Your task to perform on an android device: Search for flights from San Diego to Seattle Image 0: 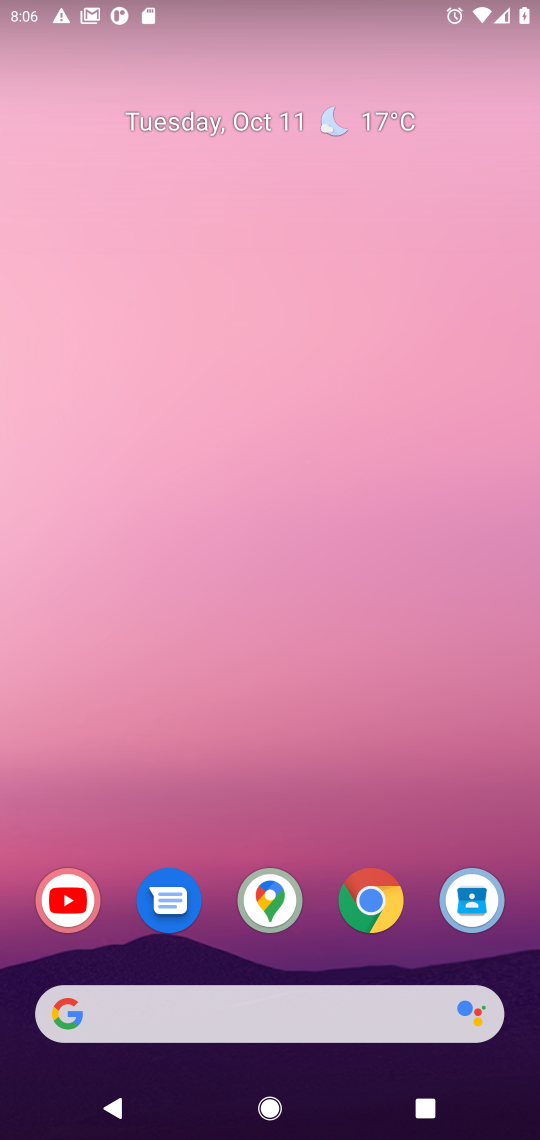
Step 0: click (374, 897)
Your task to perform on an android device: Search for flights from San Diego to Seattle Image 1: 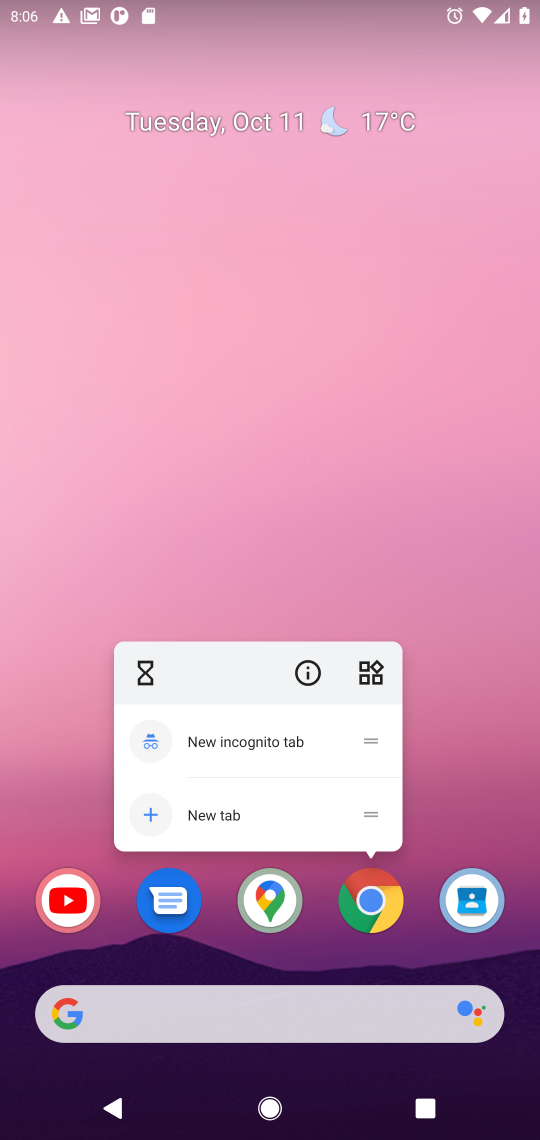
Step 1: click (366, 899)
Your task to perform on an android device: Search for flights from San Diego to Seattle Image 2: 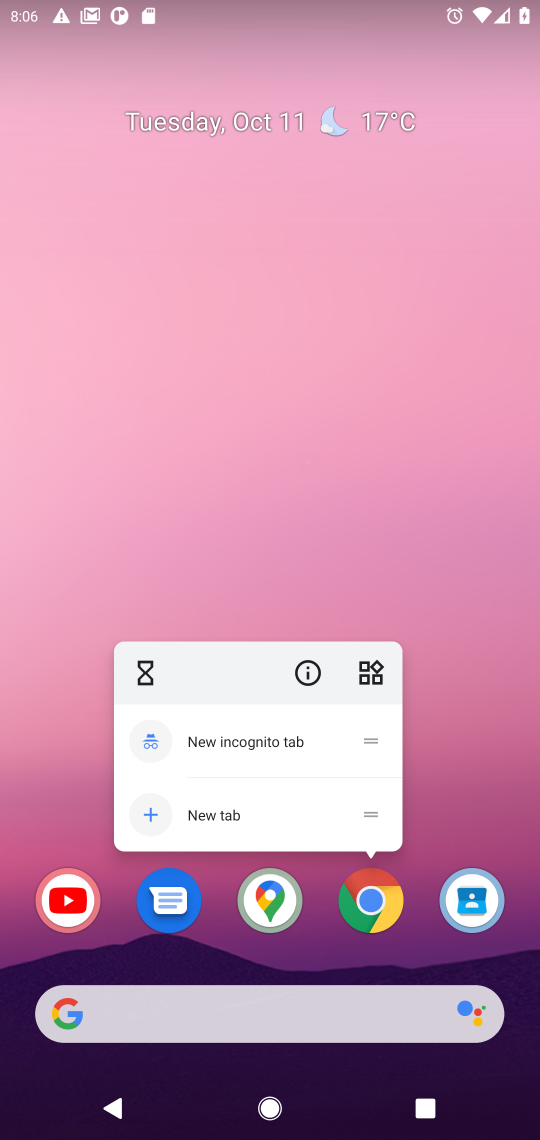
Step 2: click (366, 911)
Your task to perform on an android device: Search for flights from San Diego to Seattle Image 3: 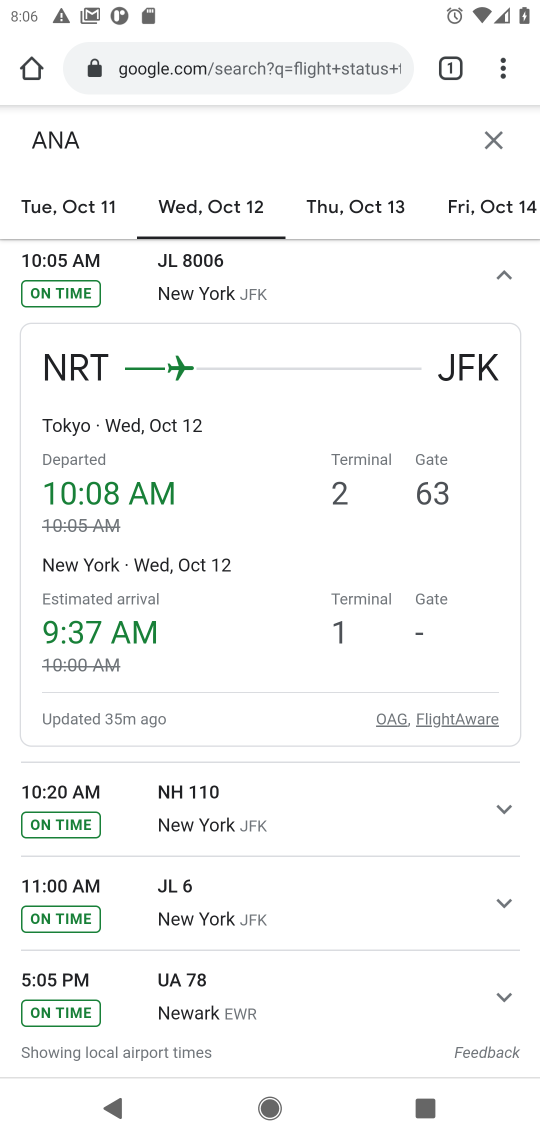
Step 3: click (304, 58)
Your task to perform on an android device: Search for flights from San Diego to Seattle Image 4: 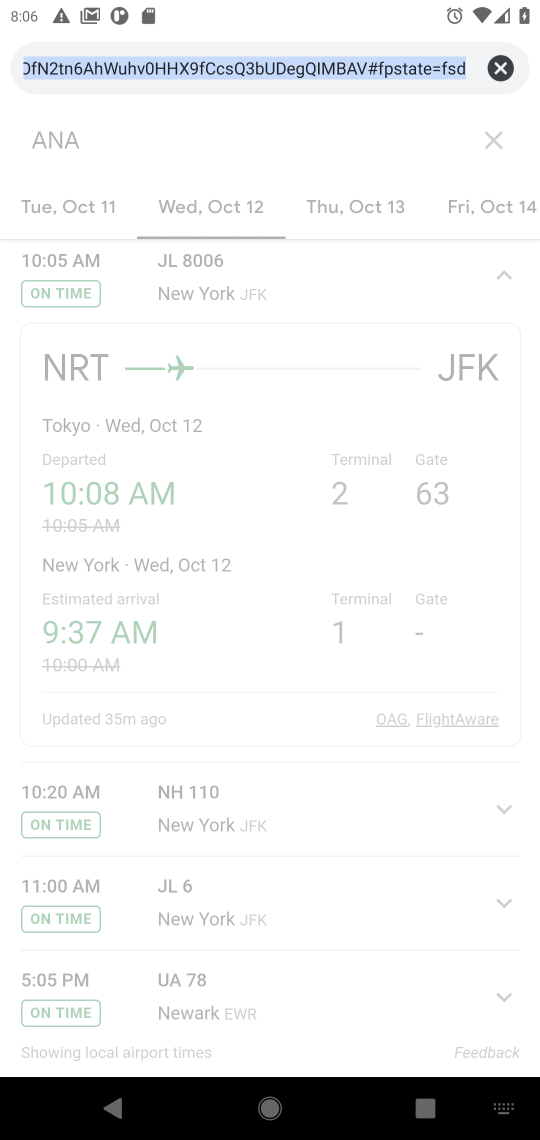
Step 4: click (498, 58)
Your task to perform on an android device: Search for flights from San Diego to Seattle Image 5: 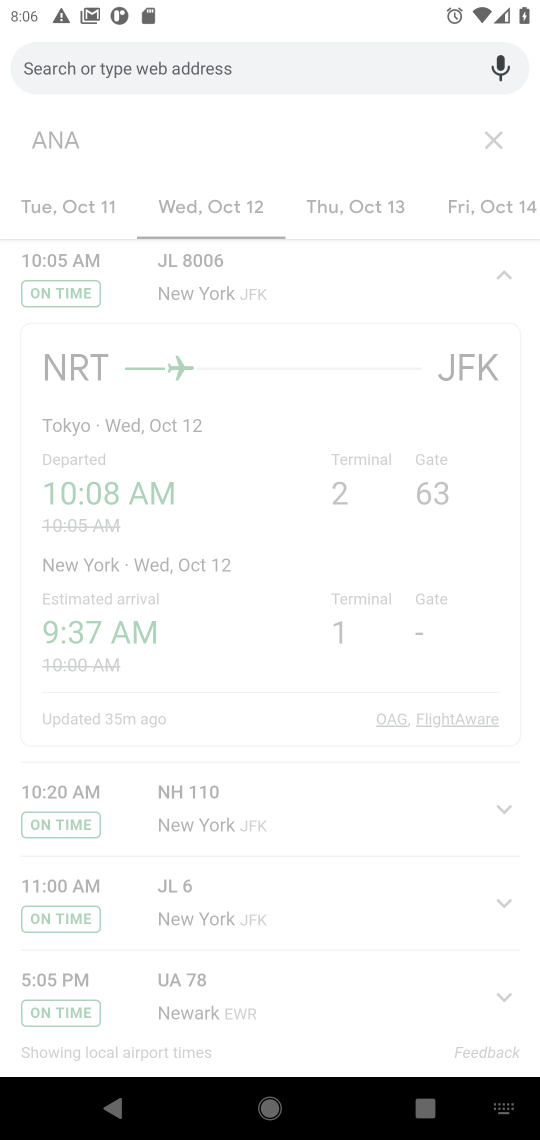
Step 5: type "flights from San Diego to Seattle"
Your task to perform on an android device: Search for flights from San Diego to Seattle Image 6: 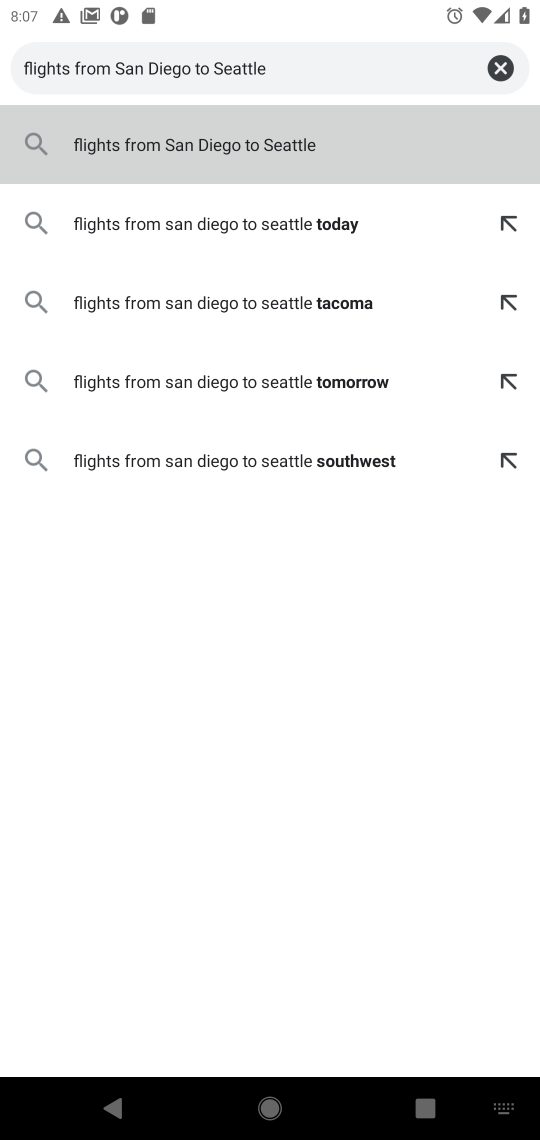
Step 6: press enter
Your task to perform on an android device: Search for flights from San Diego to Seattle Image 7: 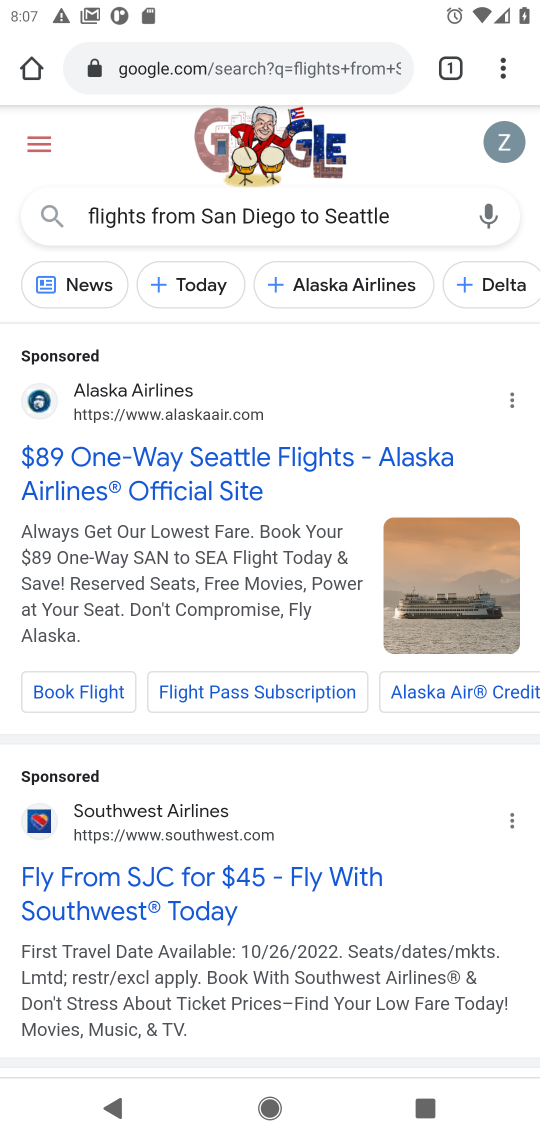
Step 7: drag from (183, 978) to (455, 108)
Your task to perform on an android device: Search for flights from San Diego to Seattle Image 8: 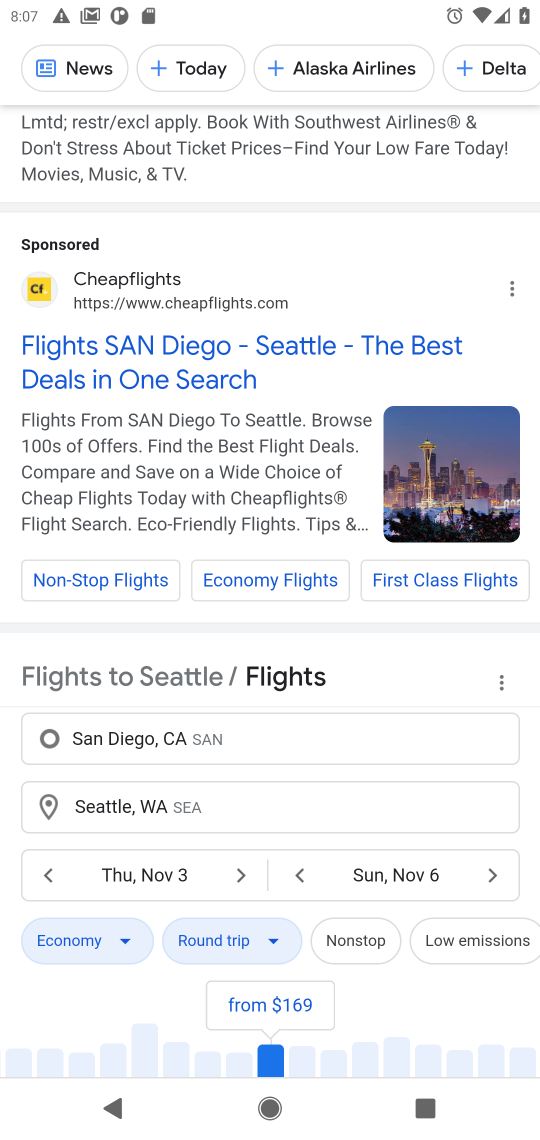
Step 8: drag from (110, 1011) to (338, 278)
Your task to perform on an android device: Search for flights from San Diego to Seattle Image 9: 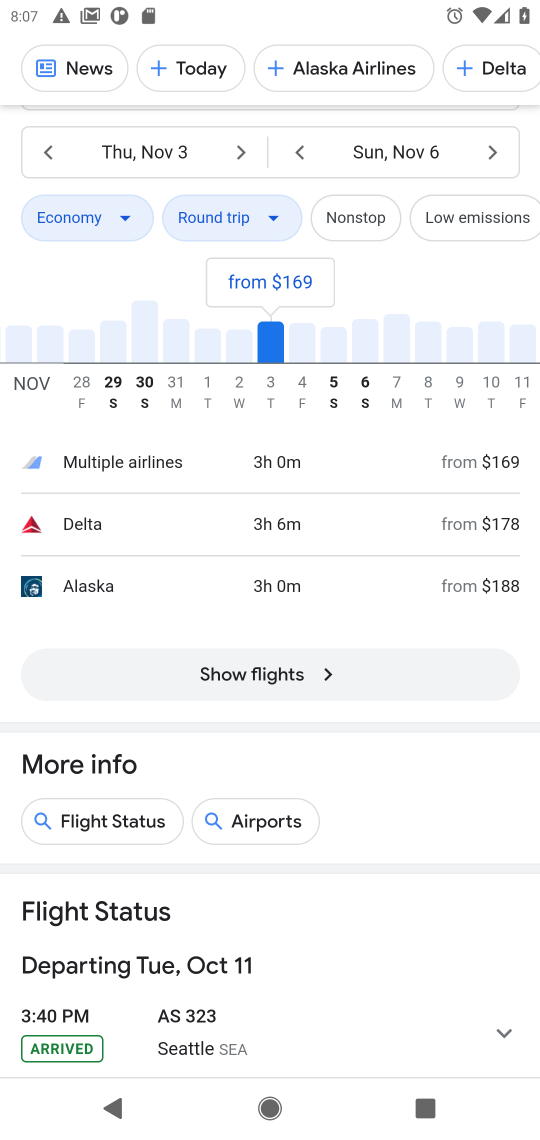
Step 9: click (256, 680)
Your task to perform on an android device: Search for flights from San Diego to Seattle Image 10: 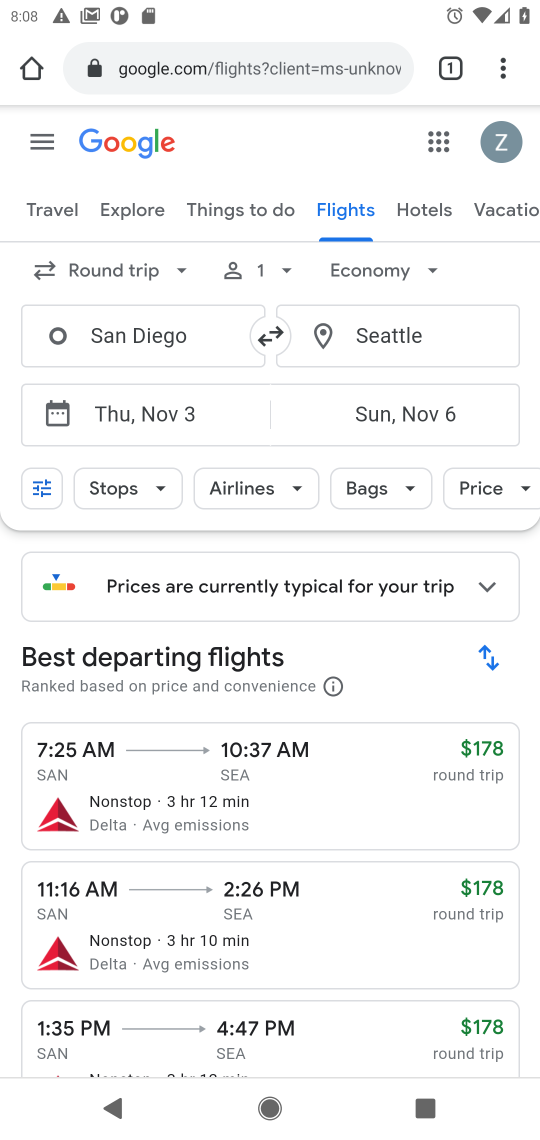
Step 10: task complete